Your task to perform on an android device: star an email in the gmail app Image 0: 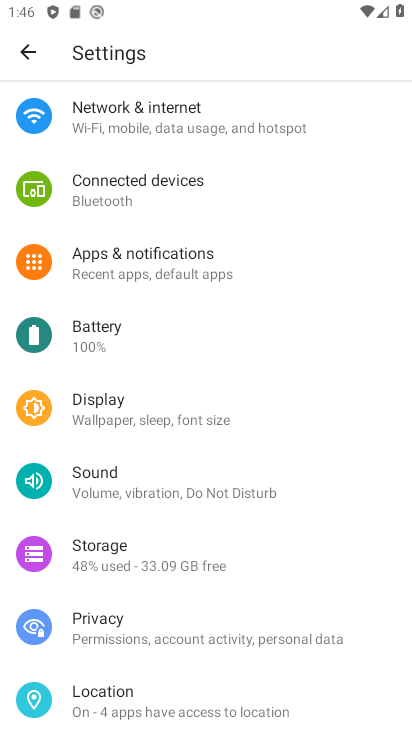
Step 0: press home button
Your task to perform on an android device: star an email in the gmail app Image 1: 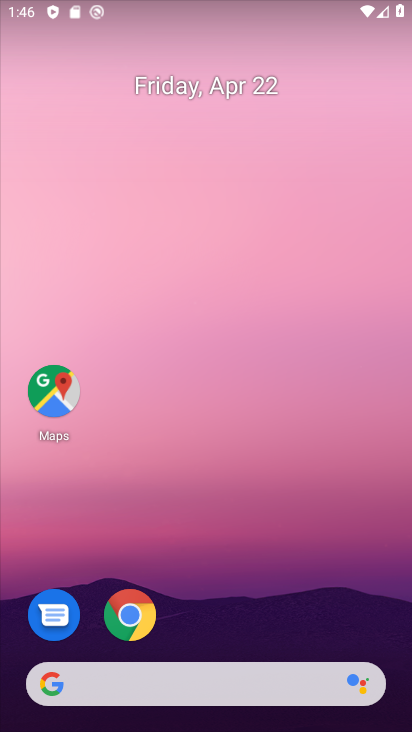
Step 1: drag from (277, 494) to (260, 0)
Your task to perform on an android device: star an email in the gmail app Image 2: 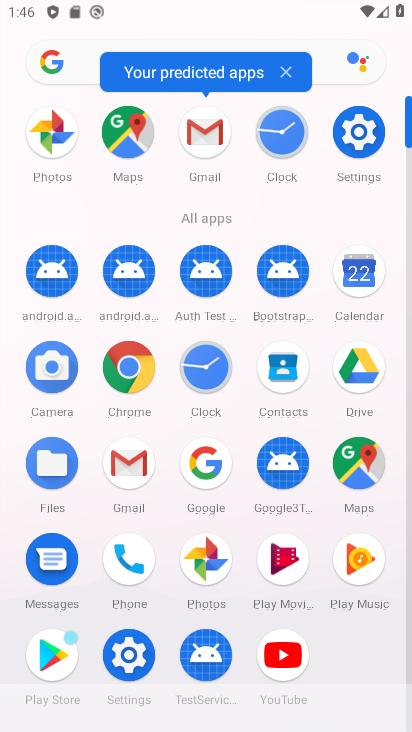
Step 2: click (194, 143)
Your task to perform on an android device: star an email in the gmail app Image 3: 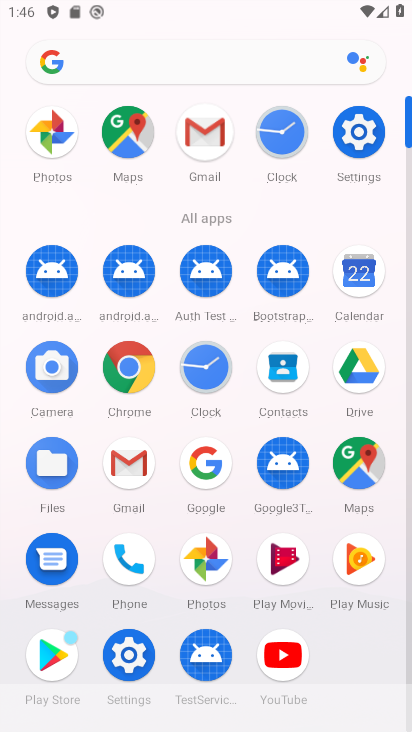
Step 3: click (194, 142)
Your task to perform on an android device: star an email in the gmail app Image 4: 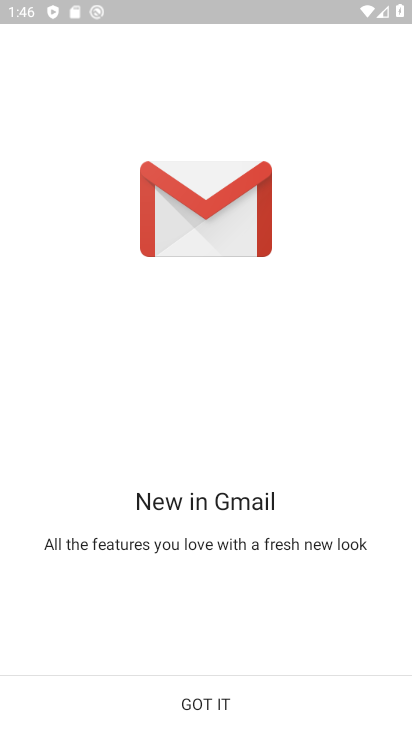
Step 4: click (218, 709)
Your task to perform on an android device: star an email in the gmail app Image 5: 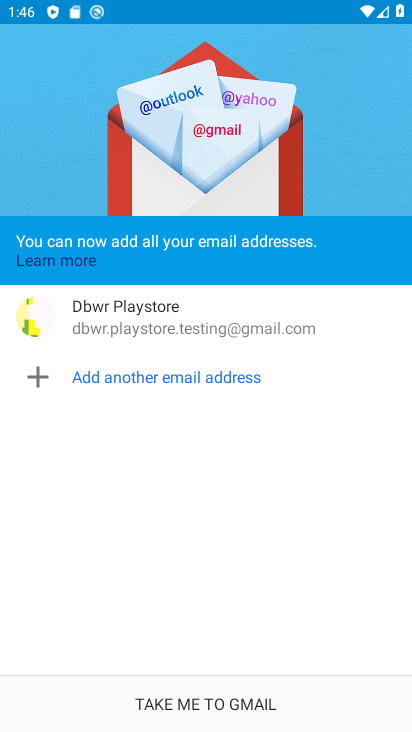
Step 5: click (218, 709)
Your task to perform on an android device: star an email in the gmail app Image 6: 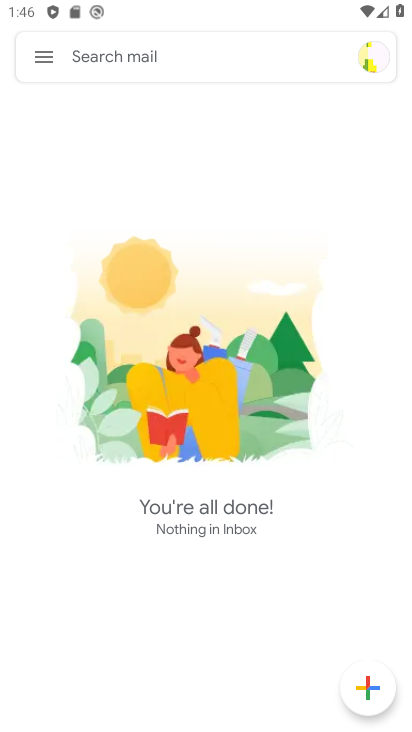
Step 6: task complete